Your task to perform on an android device: Show me popular games on the Play Store Image 0: 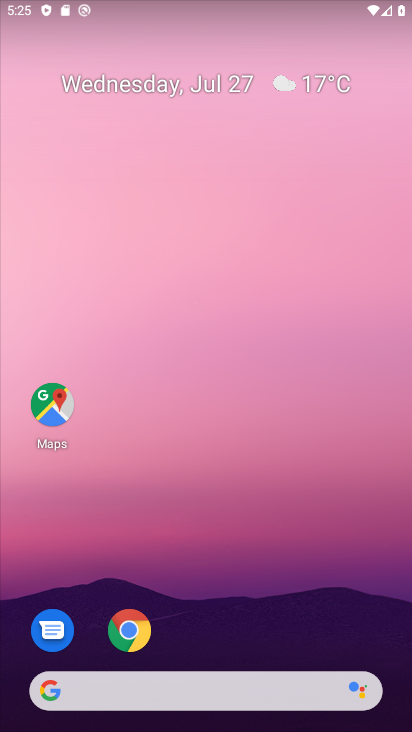
Step 0: drag from (223, 647) to (278, 1)
Your task to perform on an android device: Show me popular games on the Play Store Image 1: 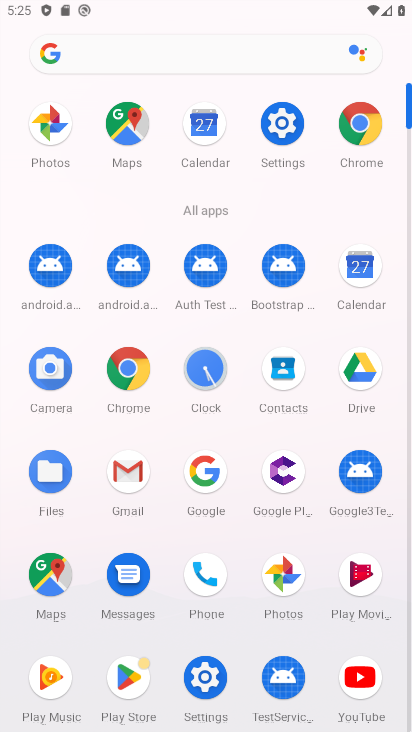
Step 1: click (133, 672)
Your task to perform on an android device: Show me popular games on the Play Store Image 2: 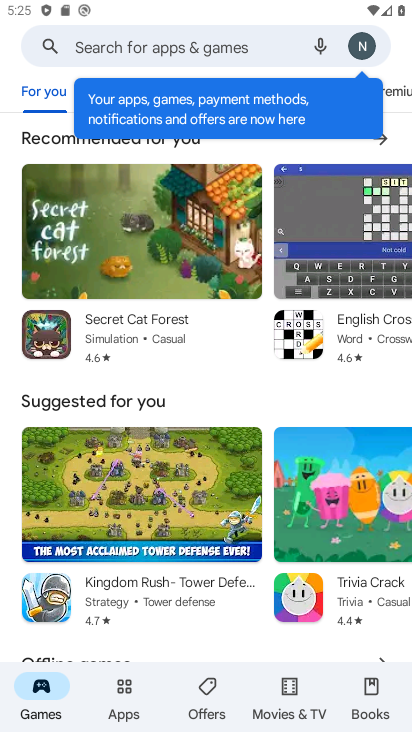
Step 2: task complete